Your task to perform on an android device: Open Amazon Image 0: 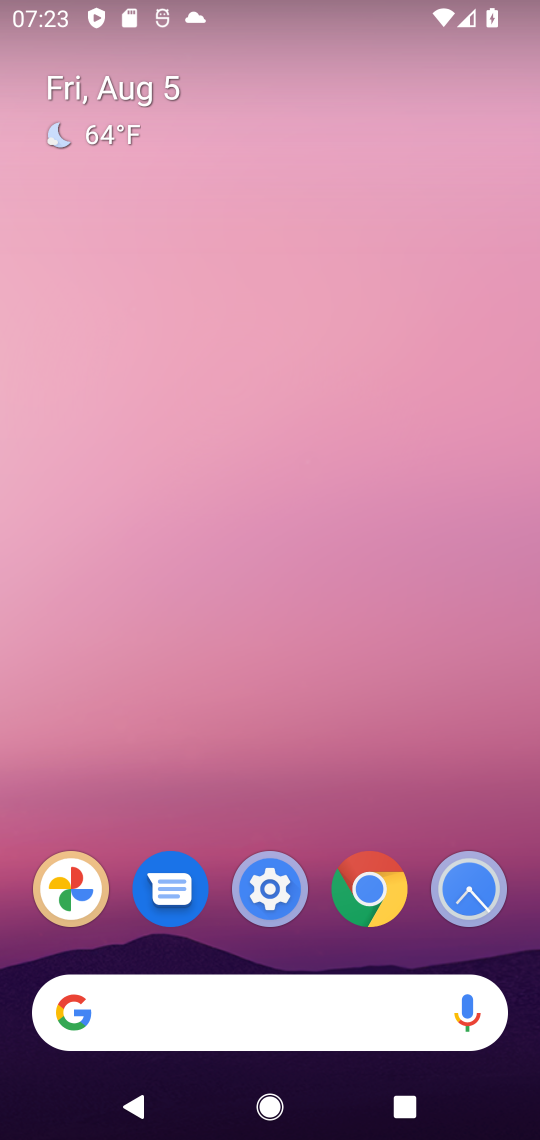
Step 0: drag from (299, 836) to (343, 315)
Your task to perform on an android device: Open Amazon Image 1: 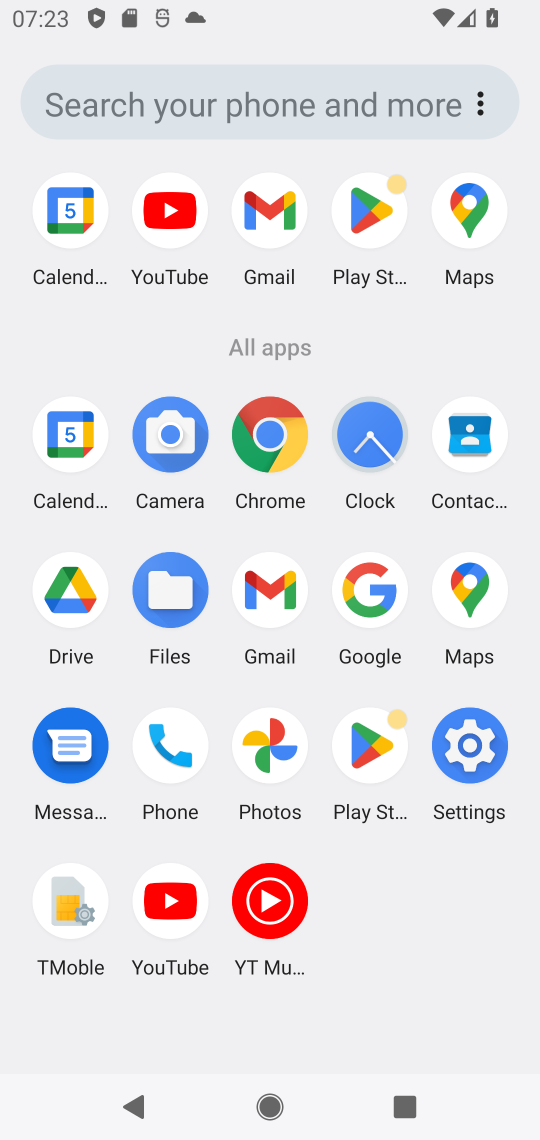
Step 1: click (375, 590)
Your task to perform on an android device: Open Amazon Image 2: 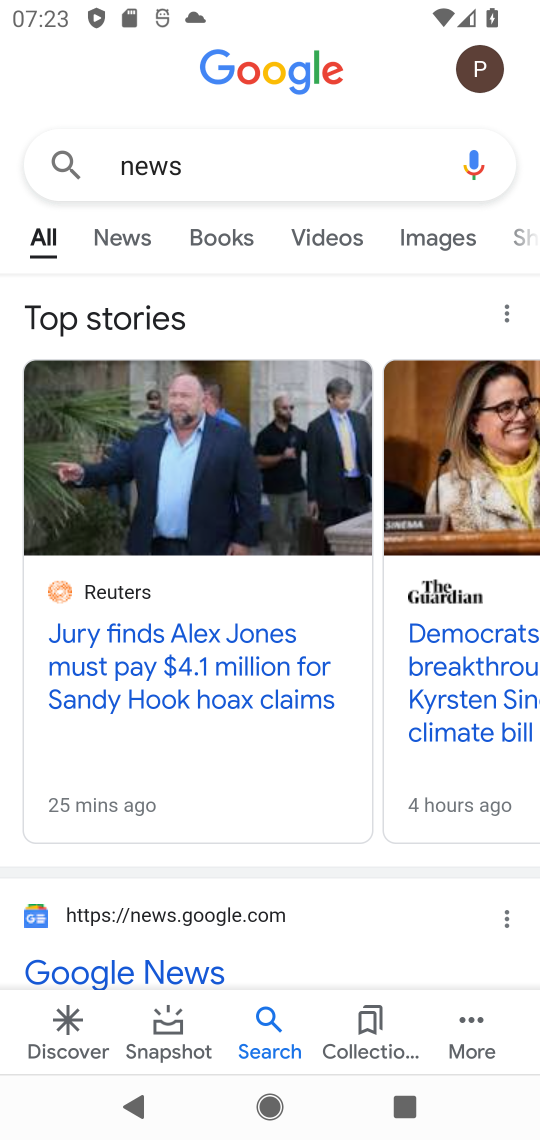
Step 2: click (214, 168)
Your task to perform on an android device: Open Amazon Image 3: 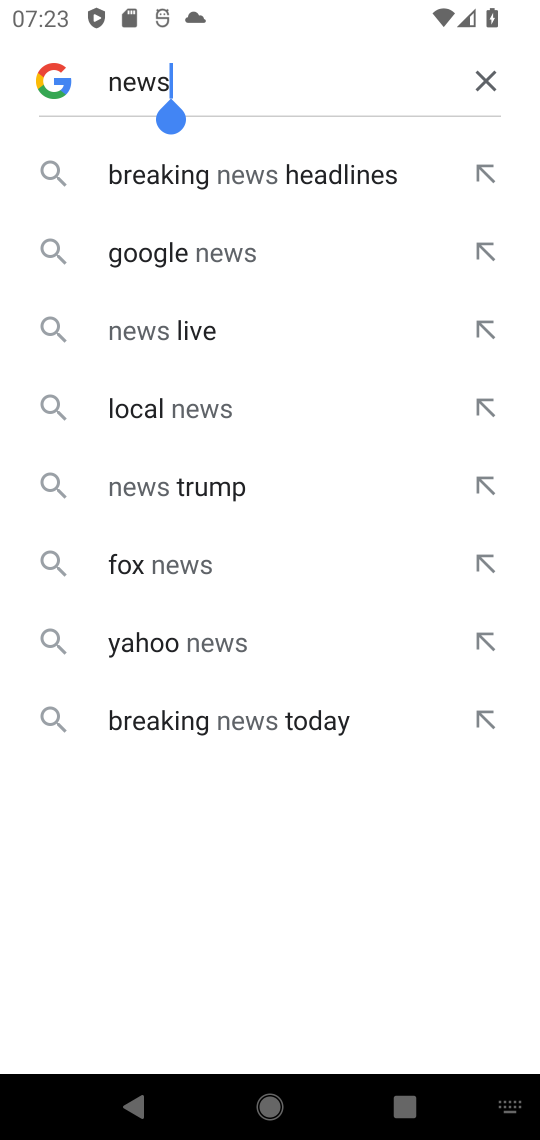
Step 3: click (473, 77)
Your task to perform on an android device: Open Amazon Image 4: 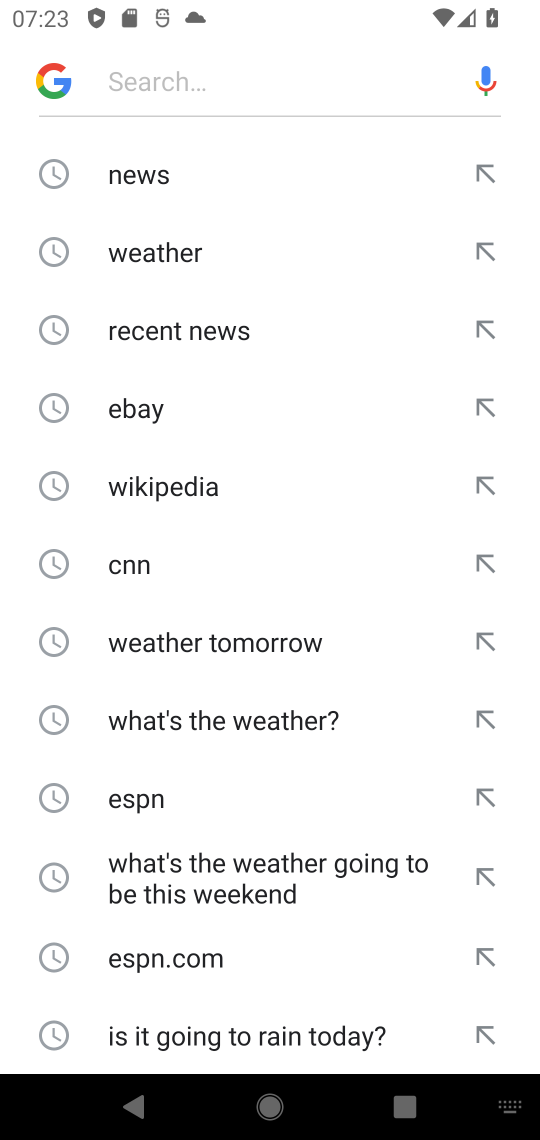
Step 4: drag from (217, 937) to (284, 400)
Your task to perform on an android device: Open Amazon Image 5: 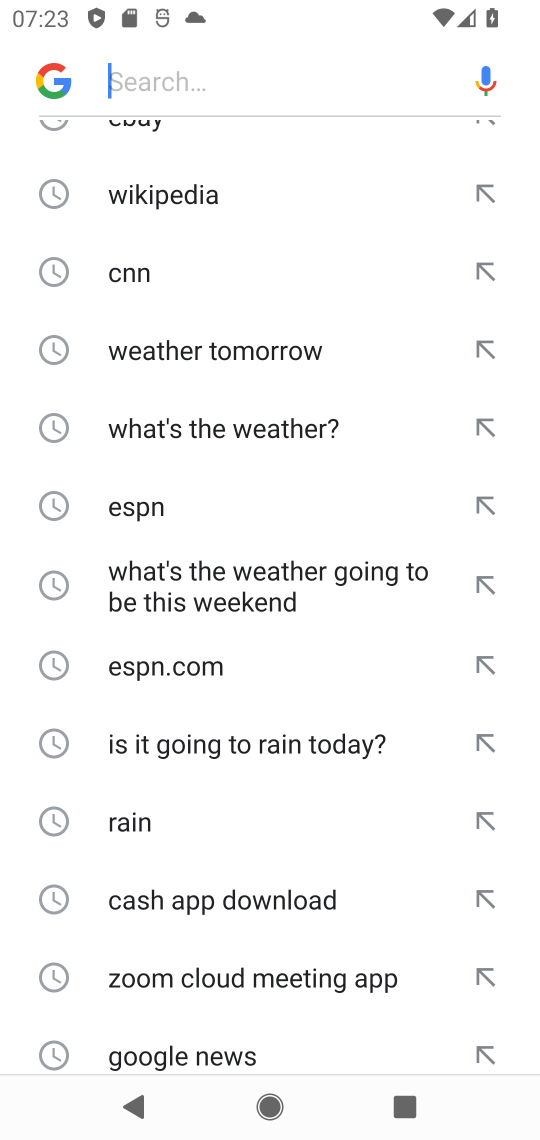
Step 5: drag from (239, 984) to (258, 444)
Your task to perform on an android device: Open Amazon Image 6: 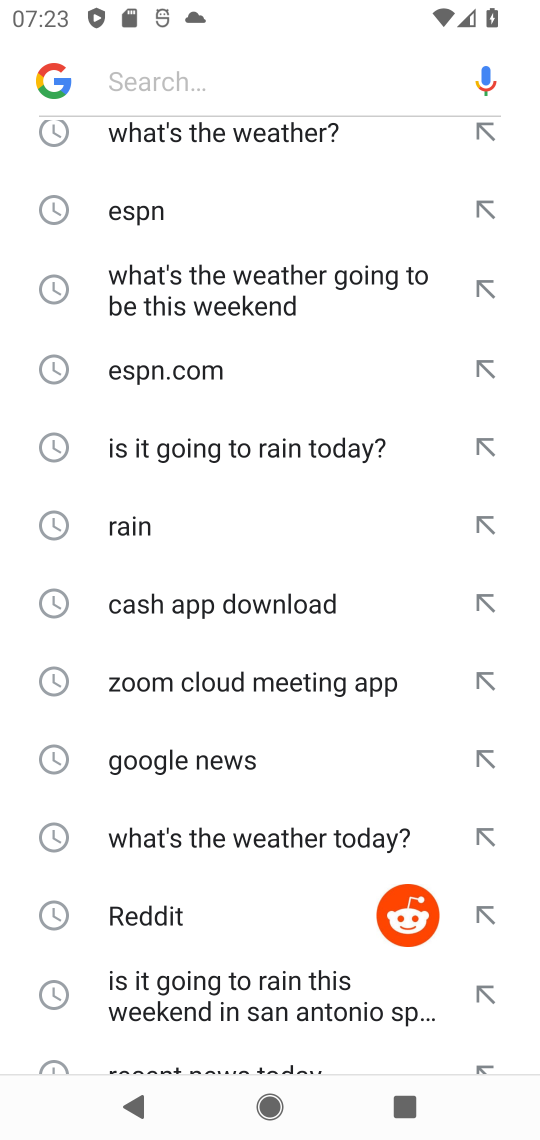
Step 6: drag from (207, 964) to (254, 389)
Your task to perform on an android device: Open Amazon Image 7: 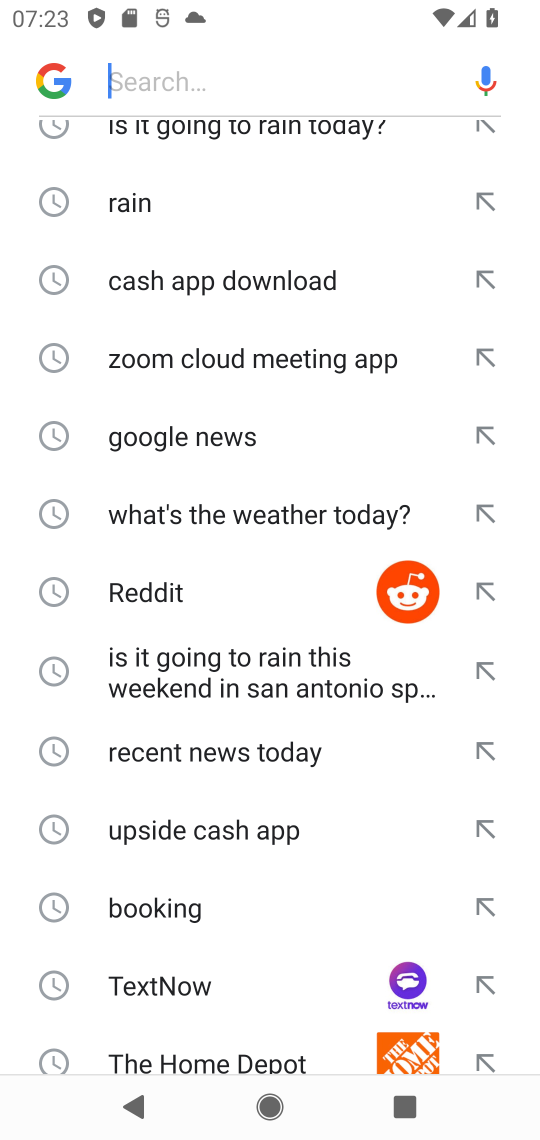
Step 7: drag from (221, 937) to (287, 382)
Your task to perform on an android device: Open Amazon Image 8: 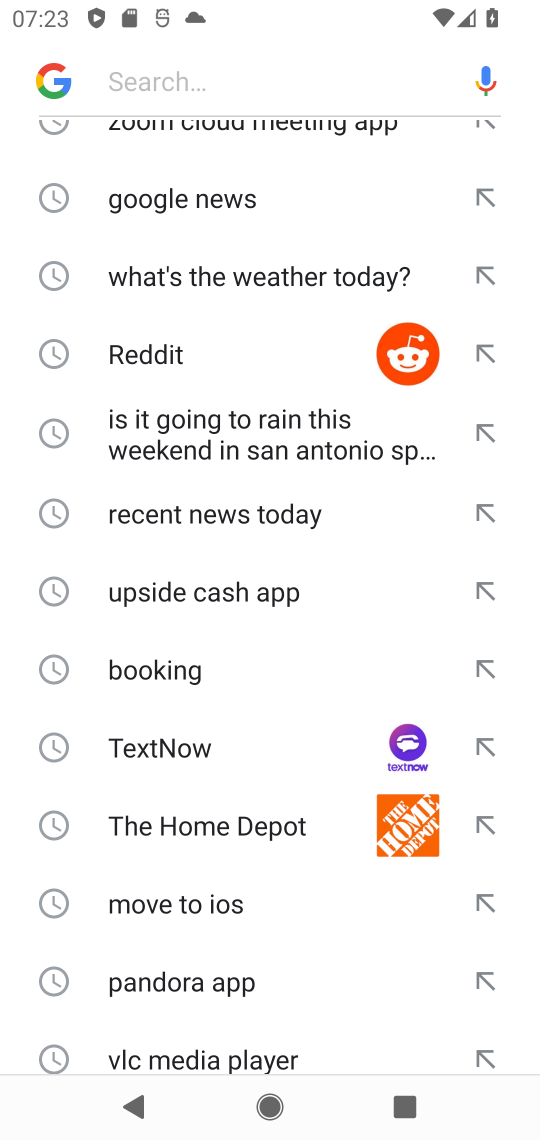
Step 8: drag from (164, 1042) to (174, 458)
Your task to perform on an android device: Open Amazon Image 9: 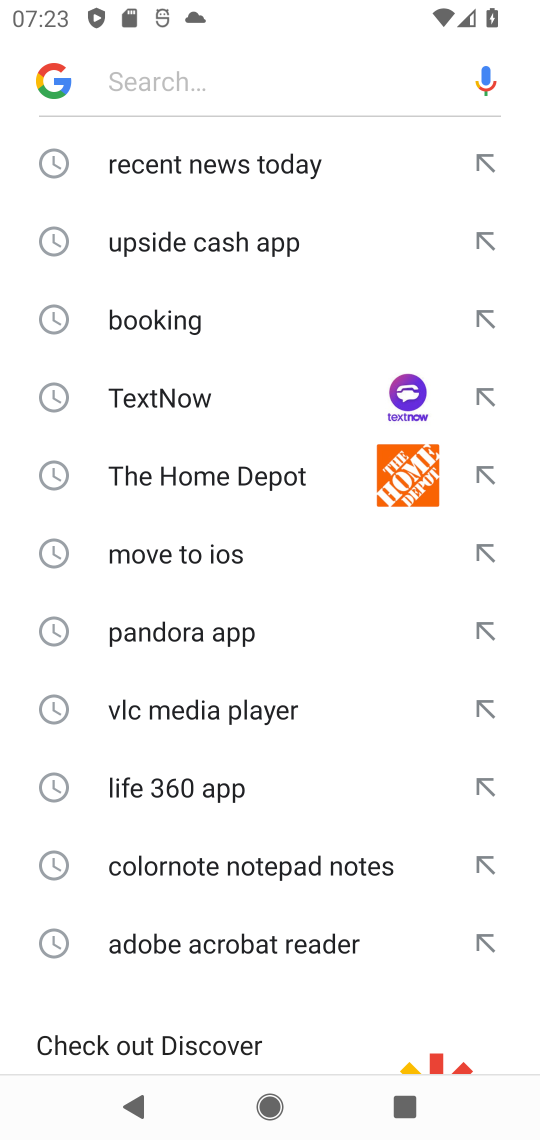
Step 9: drag from (249, 188) to (249, 852)
Your task to perform on an android device: Open Amazon Image 10: 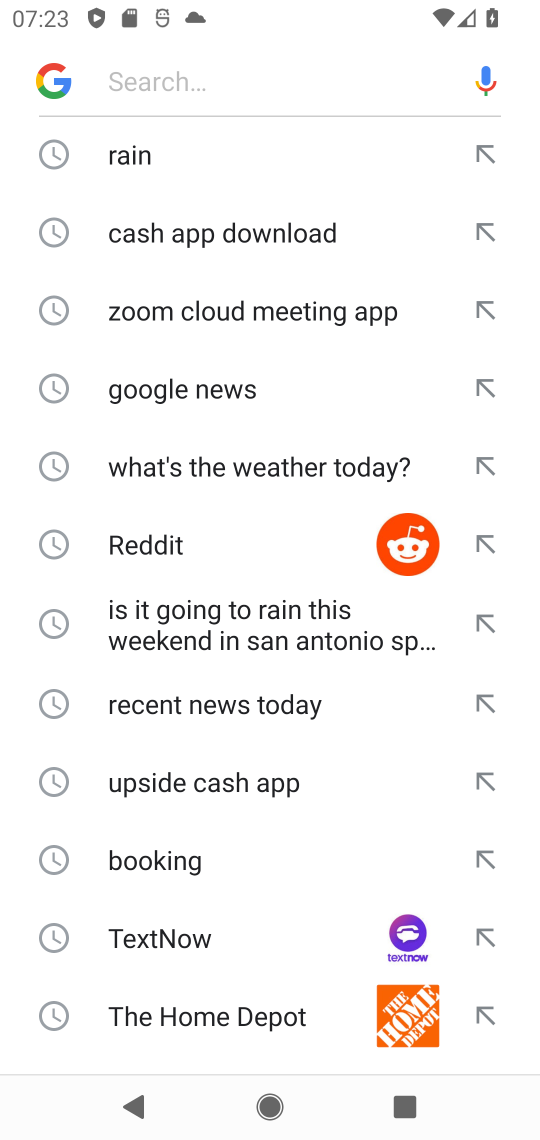
Step 10: drag from (192, 193) to (202, 829)
Your task to perform on an android device: Open Amazon Image 11: 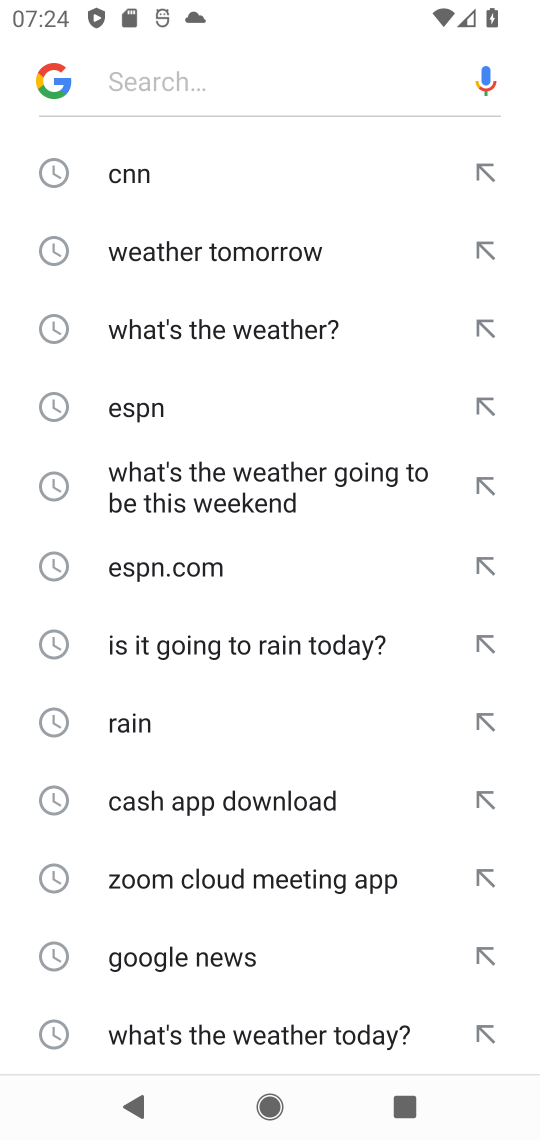
Step 11: type "Amazon"
Your task to perform on an android device: Open Amazon Image 12: 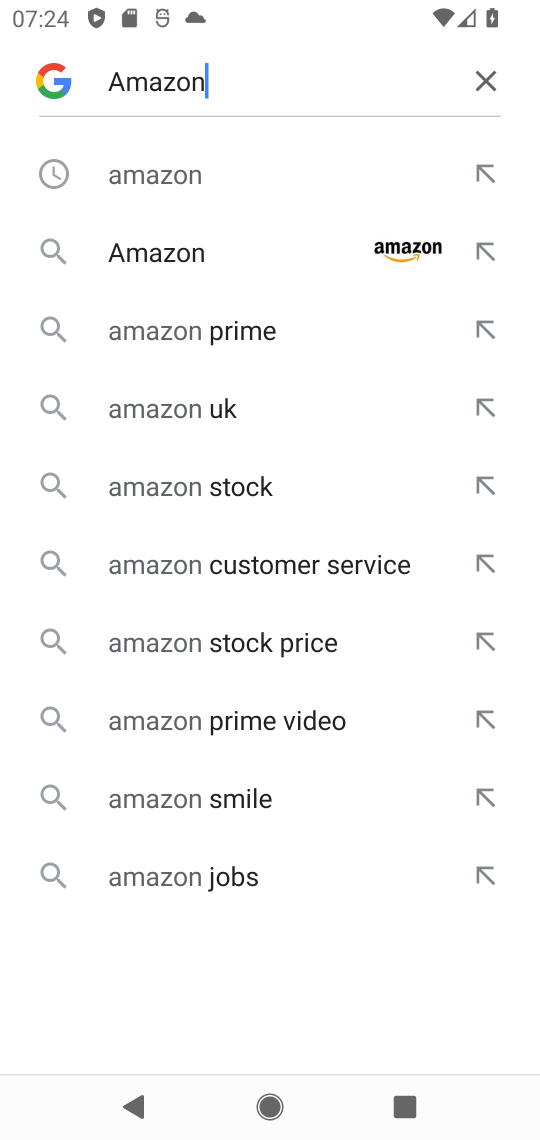
Step 12: click (159, 240)
Your task to perform on an android device: Open Amazon Image 13: 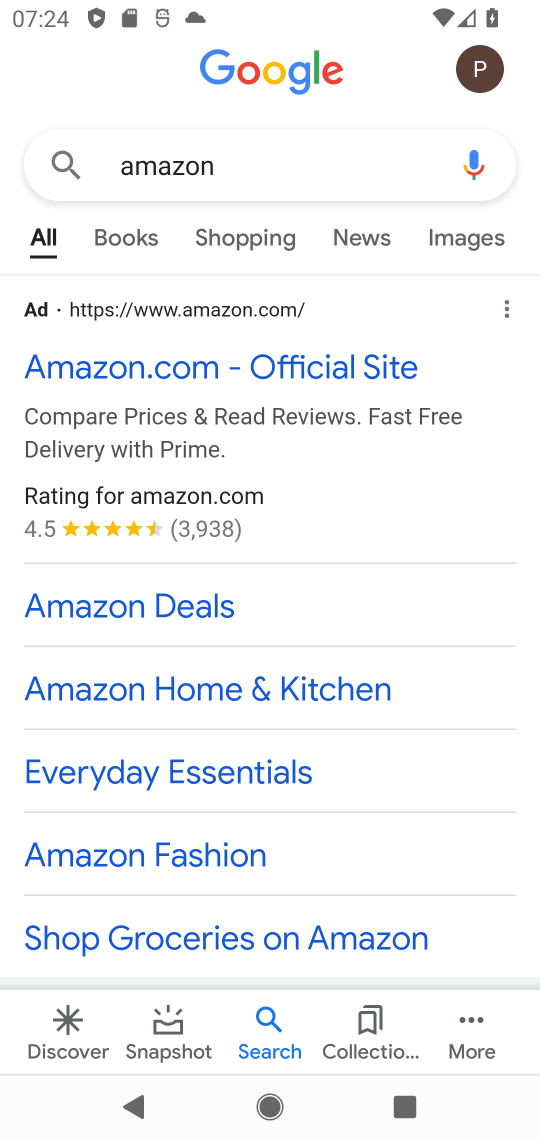
Step 13: click (75, 364)
Your task to perform on an android device: Open Amazon Image 14: 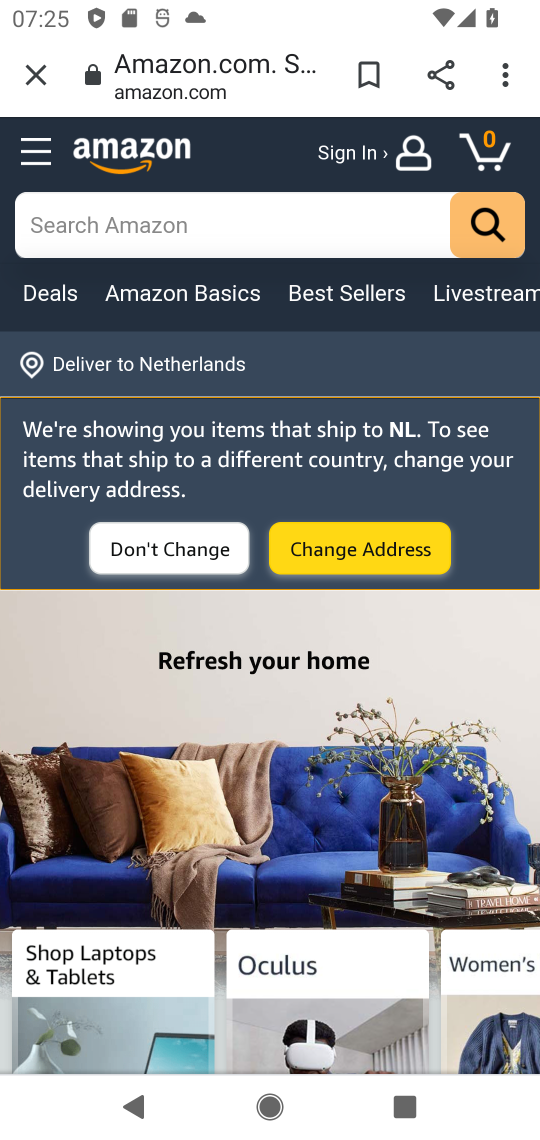
Step 14: task complete